Your task to perform on an android device: Open Reddit.com Image 0: 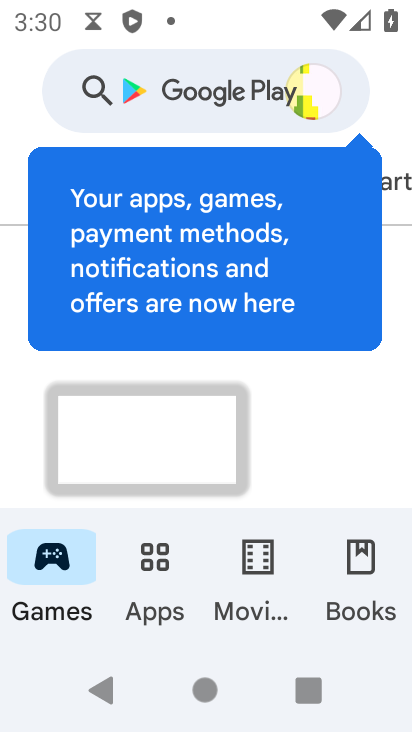
Step 0: press home button
Your task to perform on an android device: Open Reddit.com Image 1: 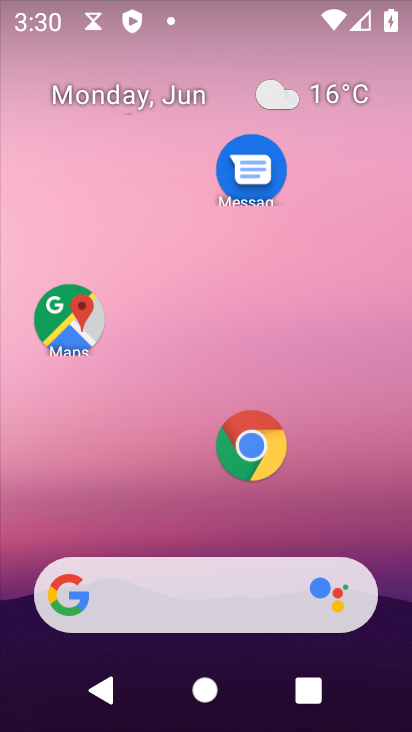
Step 1: click (163, 615)
Your task to perform on an android device: Open Reddit.com Image 2: 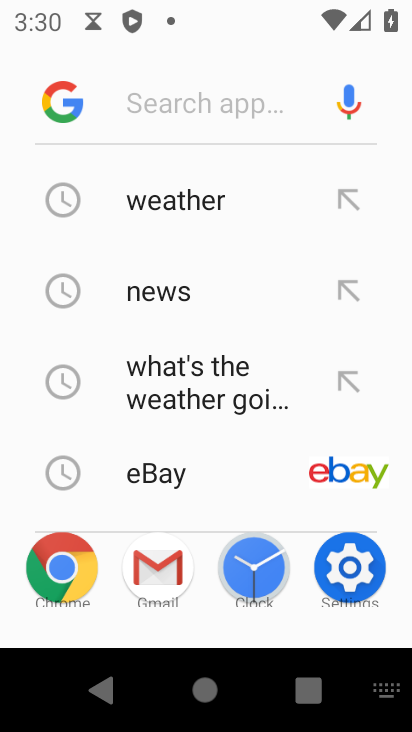
Step 2: type "Reddit.com"
Your task to perform on an android device: Open Reddit.com Image 3: 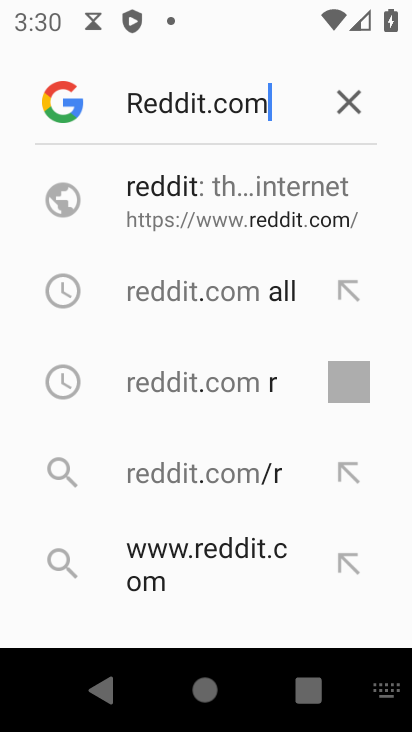
Step 3: click (195, 230)
Your task to perform on an android device: Open Reddit.com Image 4: 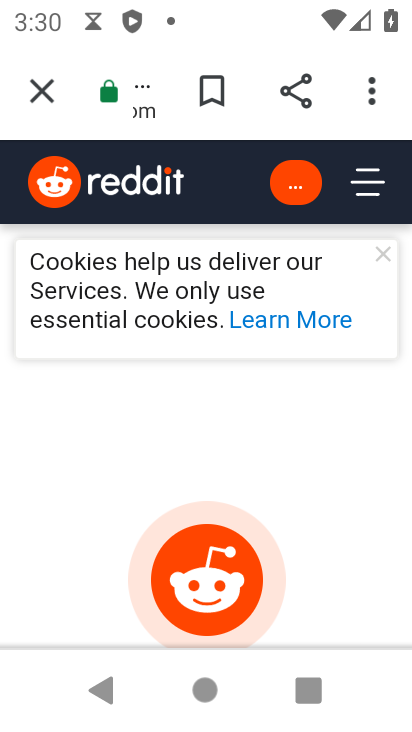
Step 4: click (380, 248)
Your task to perform on an android device: Open Reddit.com Image 5: 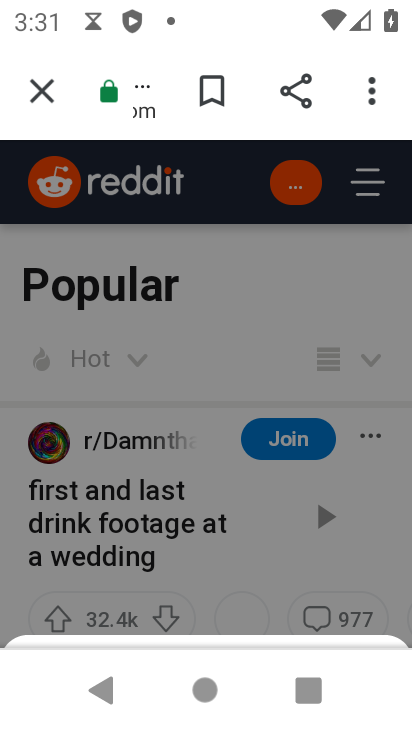
Step 5: task complete